Your task to perform on an android device: change the clock style Image 0: 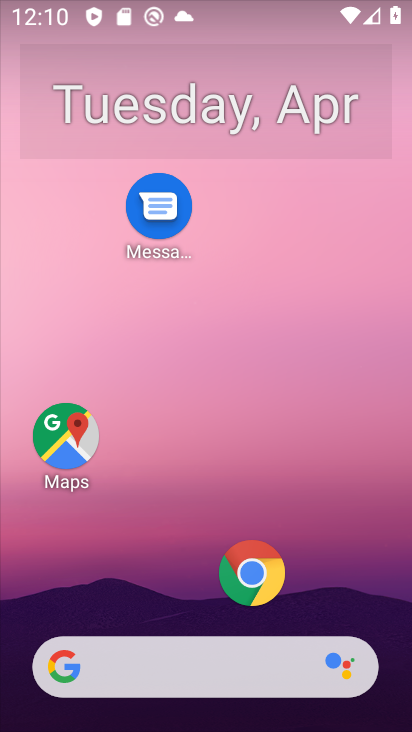
Step 0: drag from (200, 614) to (220, 1)
Your task to perform on an android device: change the clock style Image 1: 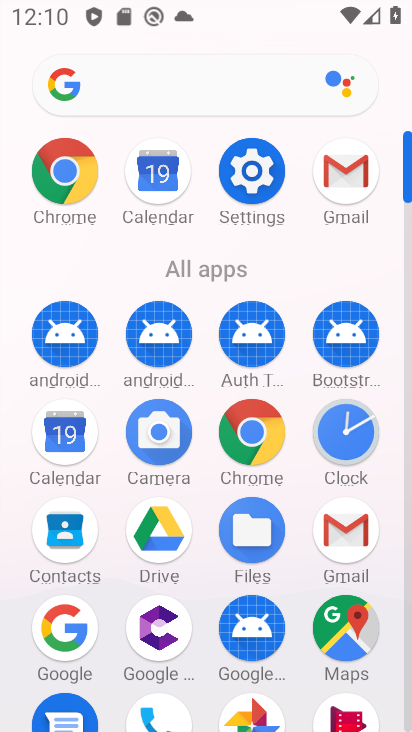
Step 1: click (340, 444)
Your task to perform on an android device: change the clock style Image 2: 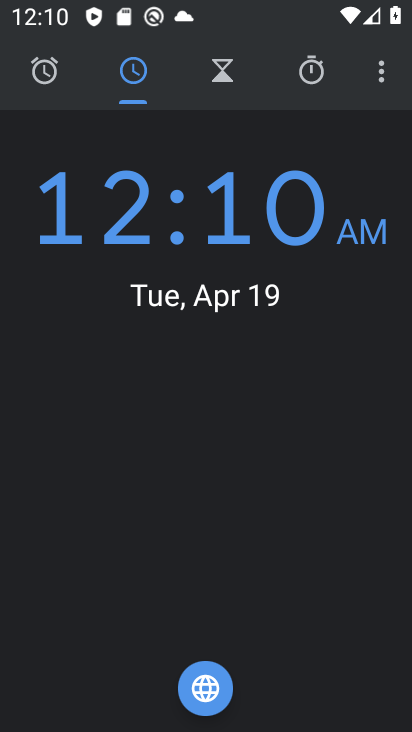
Step 2: click (367, 68)
Your task to perform on an android device: change the clock style Image 3: 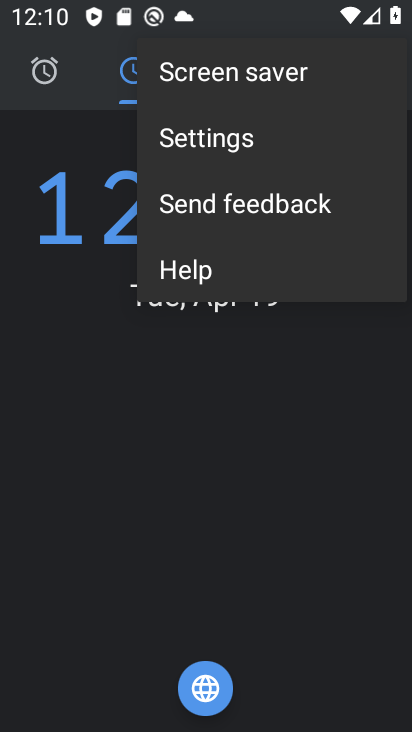
Step 3: click (270, 129)
Your task to perform on an android device: change the clock style Image 4: 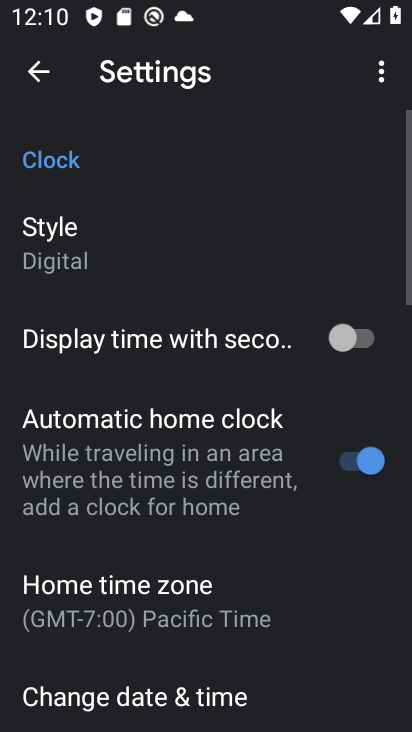
Step 4: click (107, 232)
Your task to perform on an android device: change the clock style Image 5: 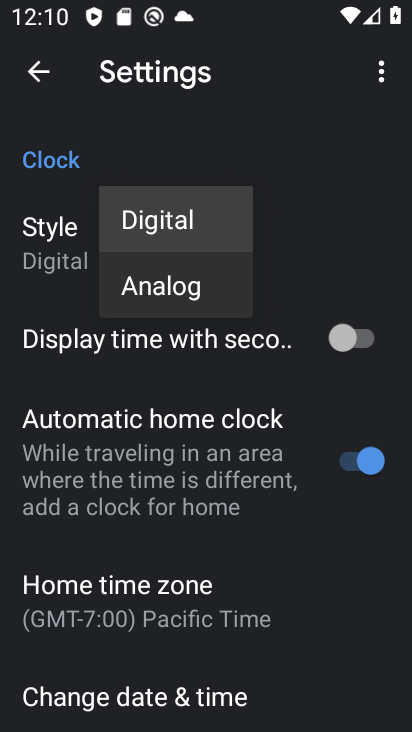
Step 5: click (158, 283)
Your task to perform on an android device: change the clock style Image 6: 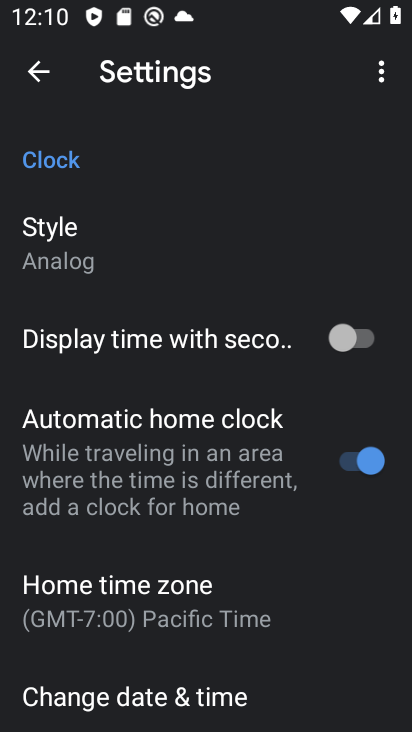
Step 6: task complete